Your task to perform on an android device: Open privacy settings Image 0: 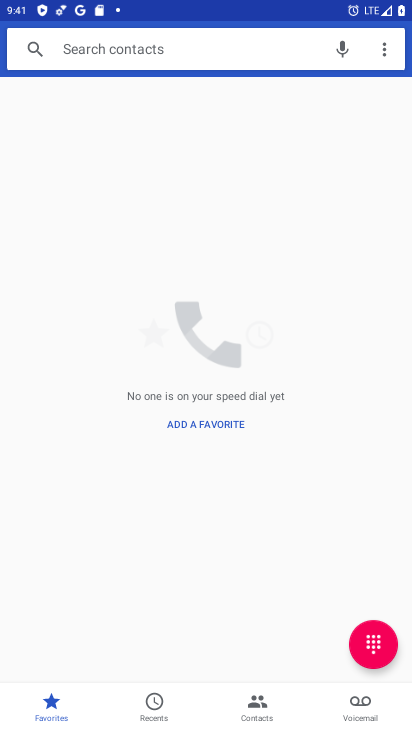
Step 0: click (220, 663)
Your task to perform on an android device: Open privacy settings Image 1: 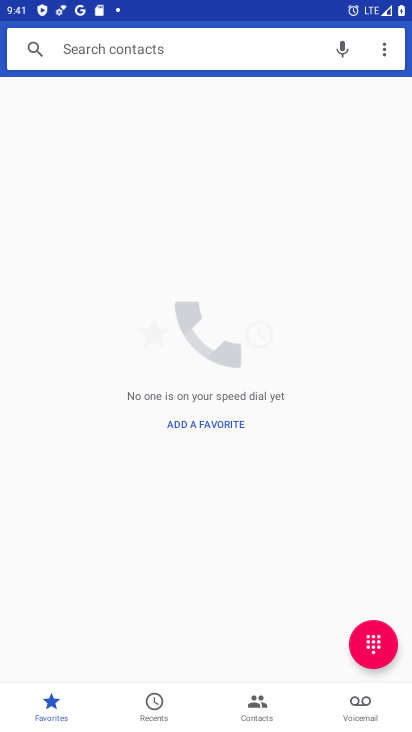
Step 1: press home button
Your task to perform on an android device: Open privacy settings Image 2: 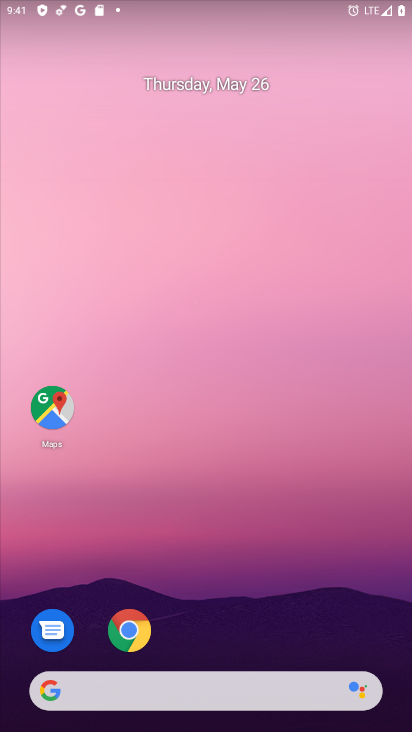
Step 2: drag from (252, 637) to (217, 206)
Your task to perform on an android device: Open privacy settings Image 3: 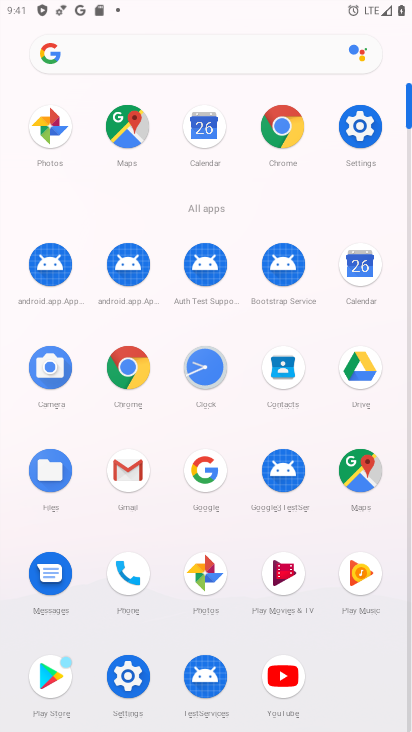
Step 3: click (352, 142)
Your task to perform on an android device: Open privacy settings Image 4: 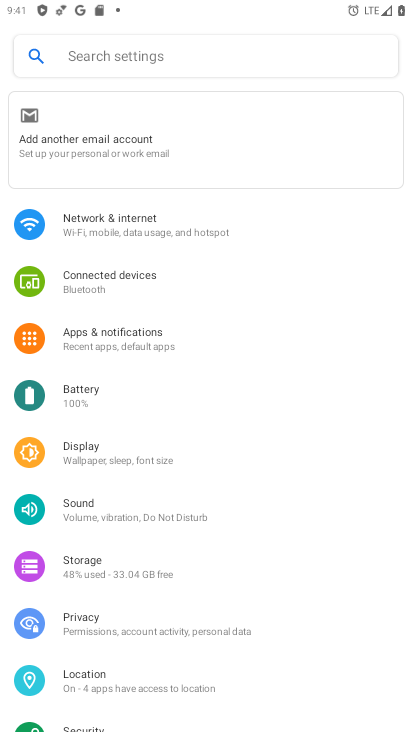
Step 4: click (100, 614)
Your task to perform on an android device: Open privacy settings Image 5: 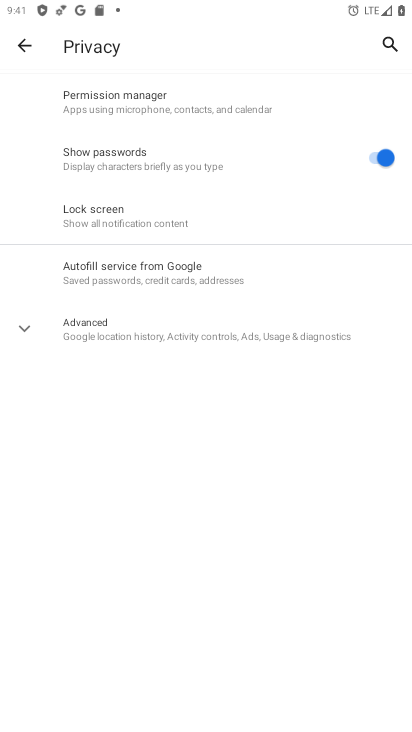
Step 5: task complete